Your task to perform on an android device: see creations saved in the google photos Image 0: 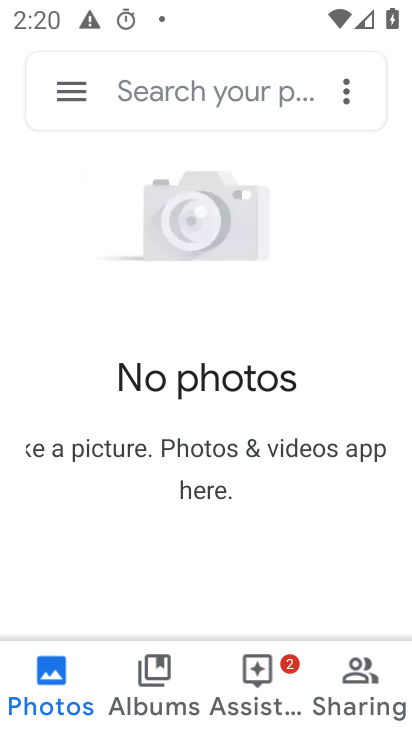
Step 0: click (51, 674)
Your task to perform on an android device: see creations saved in the google photos Image 1: 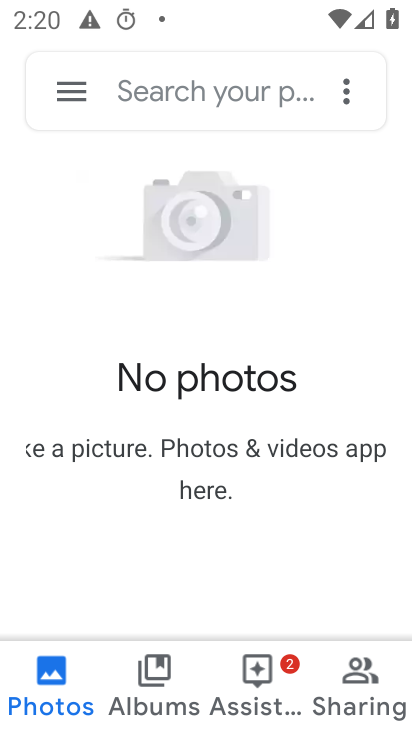
Step 1: task complete